Your task to perform on an android device: Go to internet settings Image 0: 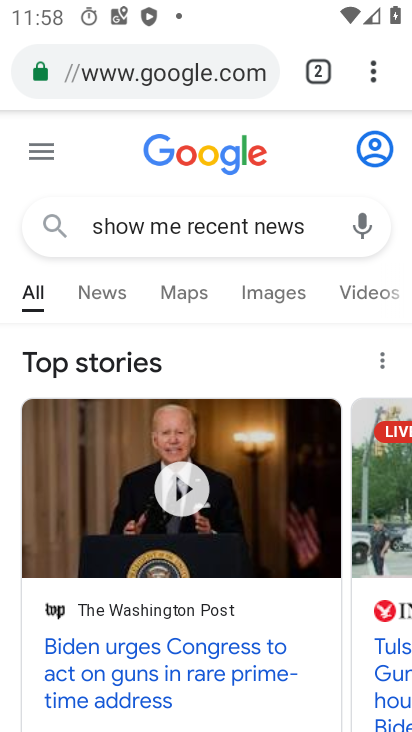
Step 0: press home button
Your task to perform on an android device: Go to internet settings Image 1: 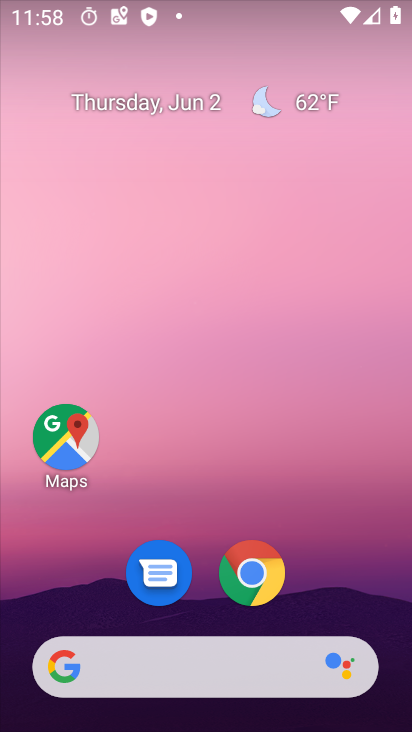
Step 1: drag from (277, 534) to (263, 67)
Your task to perform on an android device: Go to internet settings Image 2: 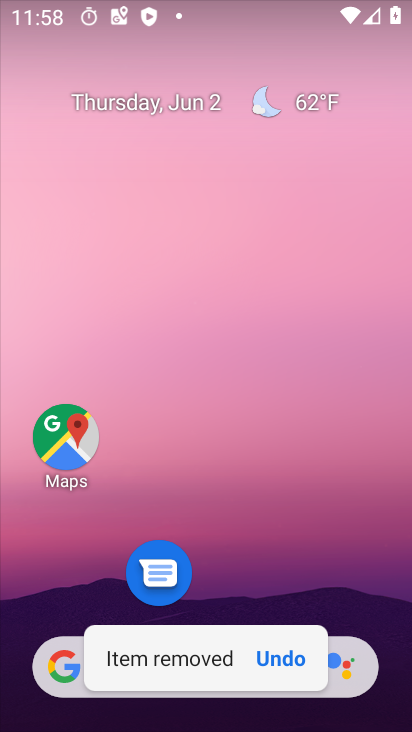
Step 2: drag from (171, 447) to (170, 113)
Your task to perform on an android device: Go to internet settings Image 3: 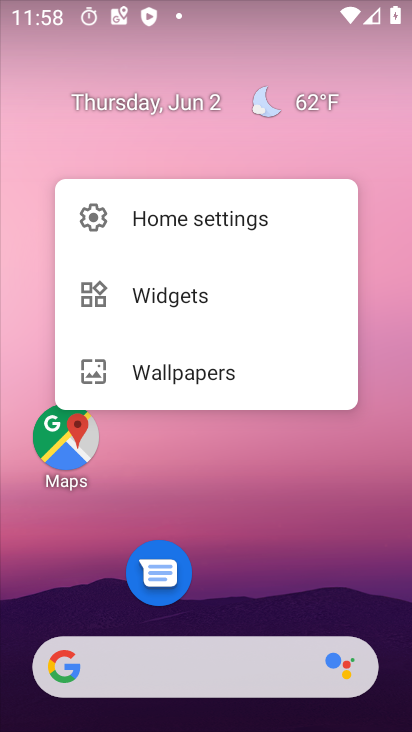
Step 3: press home button
Your task to perform on an android device: Go to internet settings Image 4: 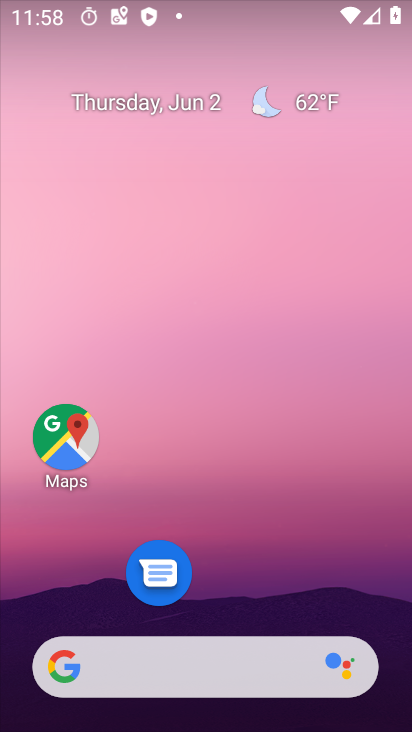
Step 4: drag from (216, 617) to (263, 64)
Your task to perform on an android device: Go to internet settings Image 5: 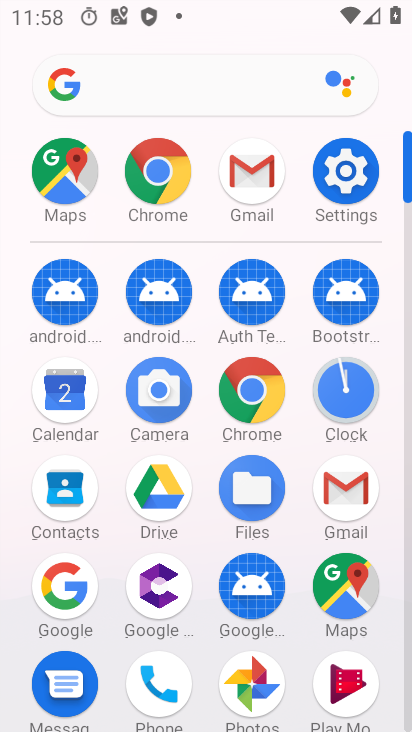
Step 5: click (350, 214)
Your task to perform on an android device: Go to internet settings Image 6: 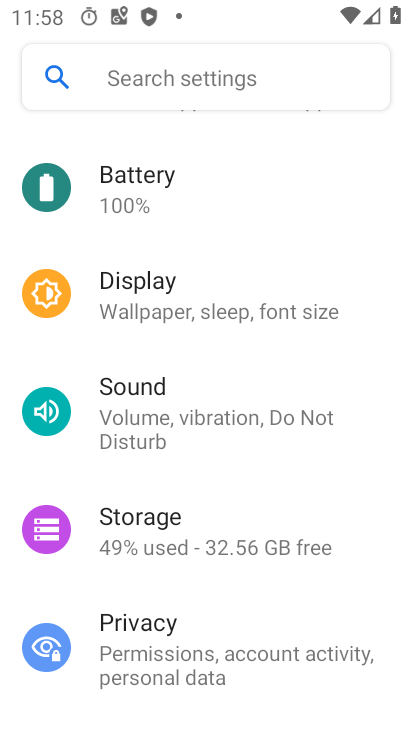
Step 6: drag from (202, 253) to (252, 727)
Your task to perform on an android device: Go to internet settings Image 7: 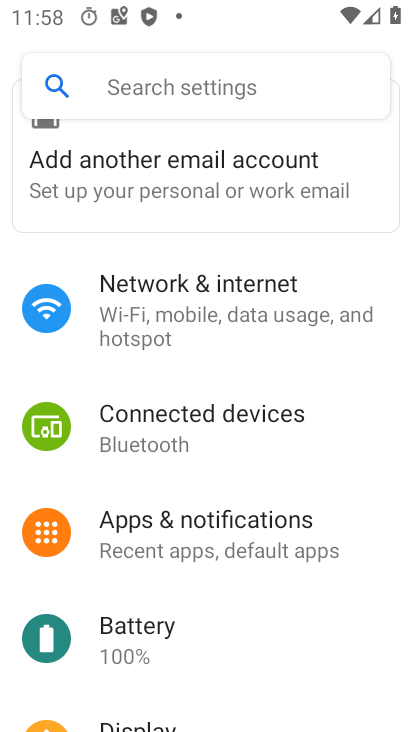
Step 7: click (247, 318)
Your task to perform on an android device: Go to internet settings Image 8: 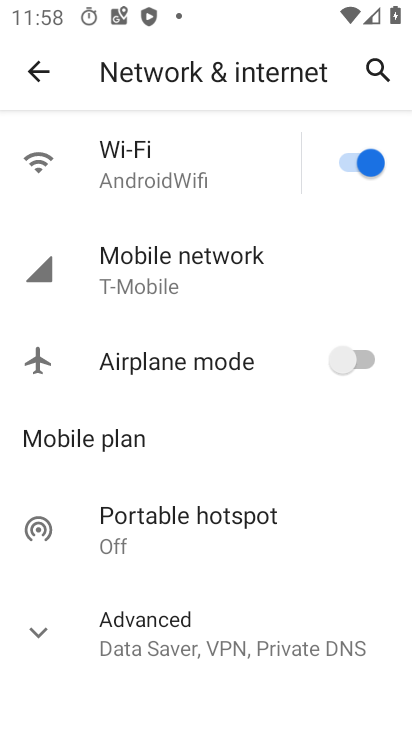
Step 8: task complete